Your task to perform on an android device: Search for jbl charge 4 on costco, select the first entry, add it to the cart, then select checkout. Image 0: 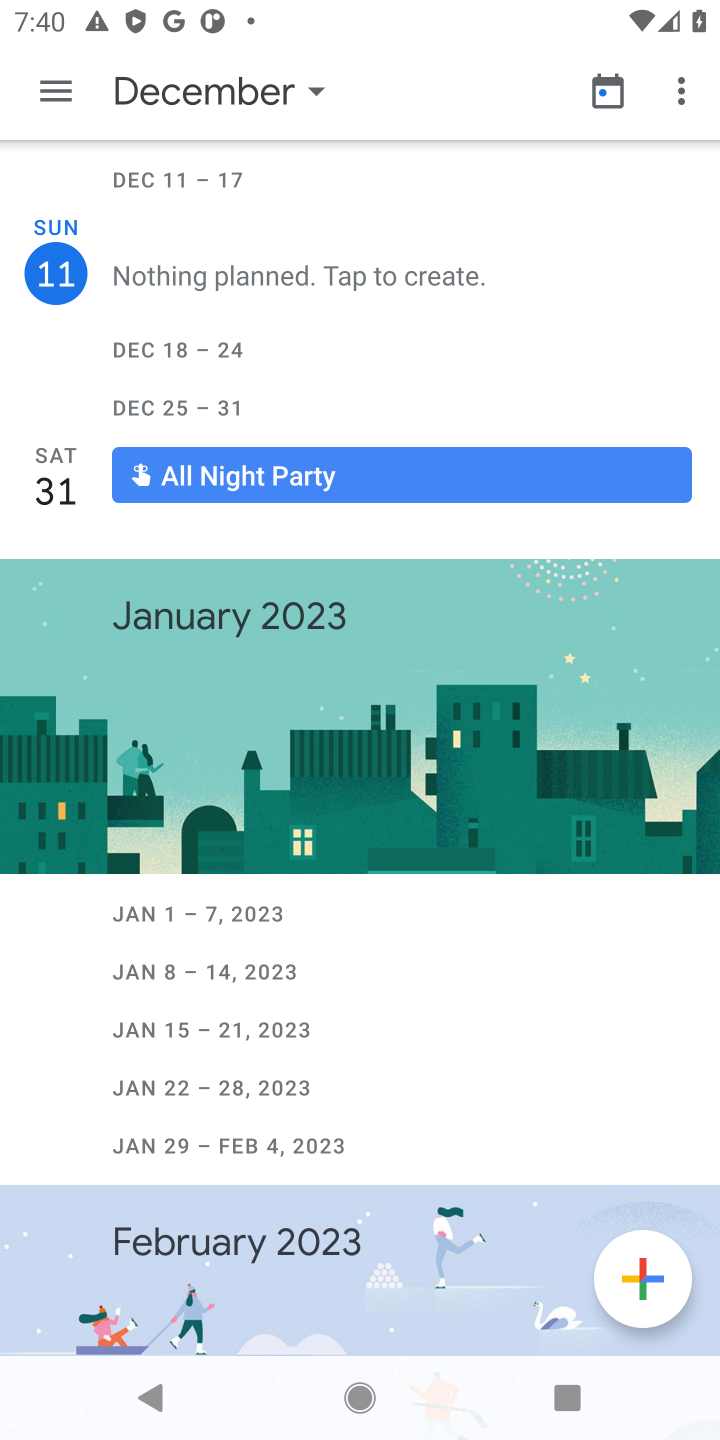
Step 0: press home button
Your task to perform on an android device: Search for jbl charge 4 on costco, select the first entry, add it to the cart, then select checkout. Image 1: 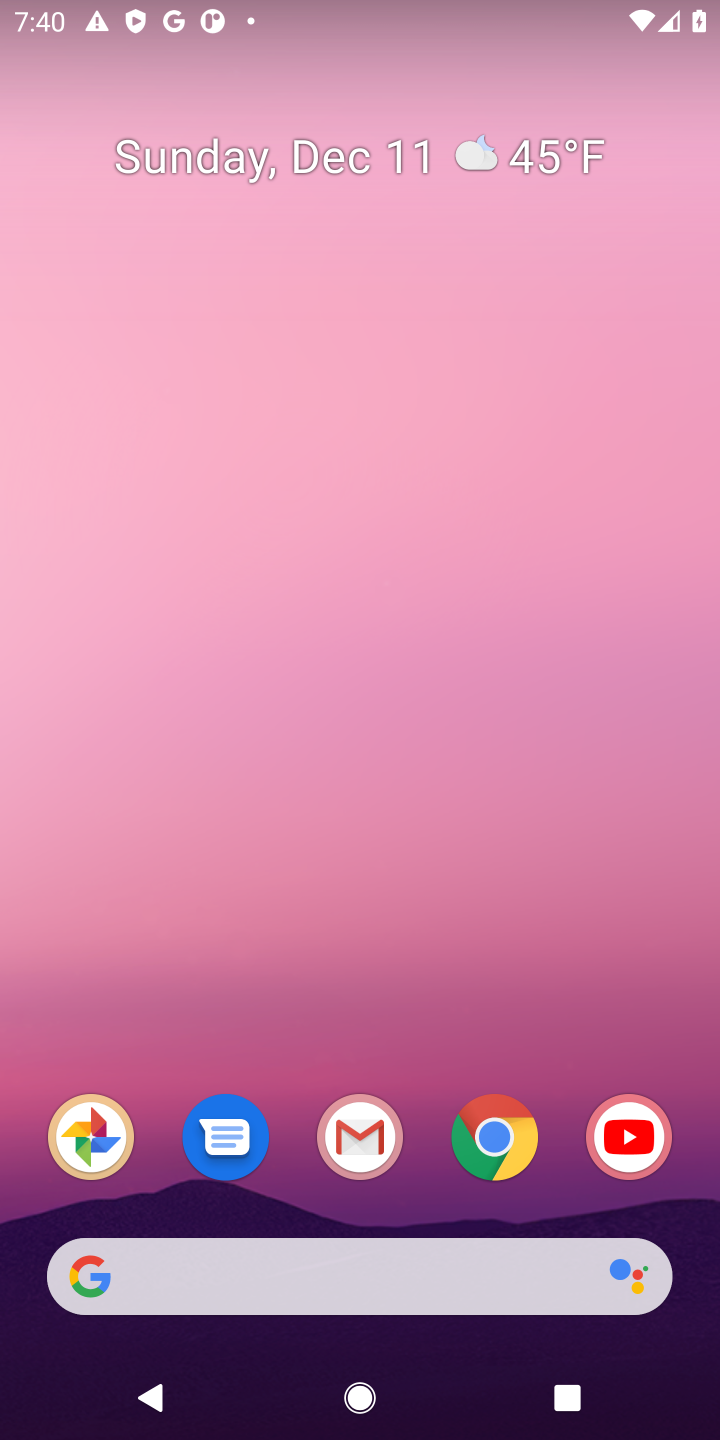
Step 1: click (511, 1154)
Your task to perform on an android device: Search for jbl charge 4 on costco, select the first entry, add it to the cart, then select checkout. Image 2: 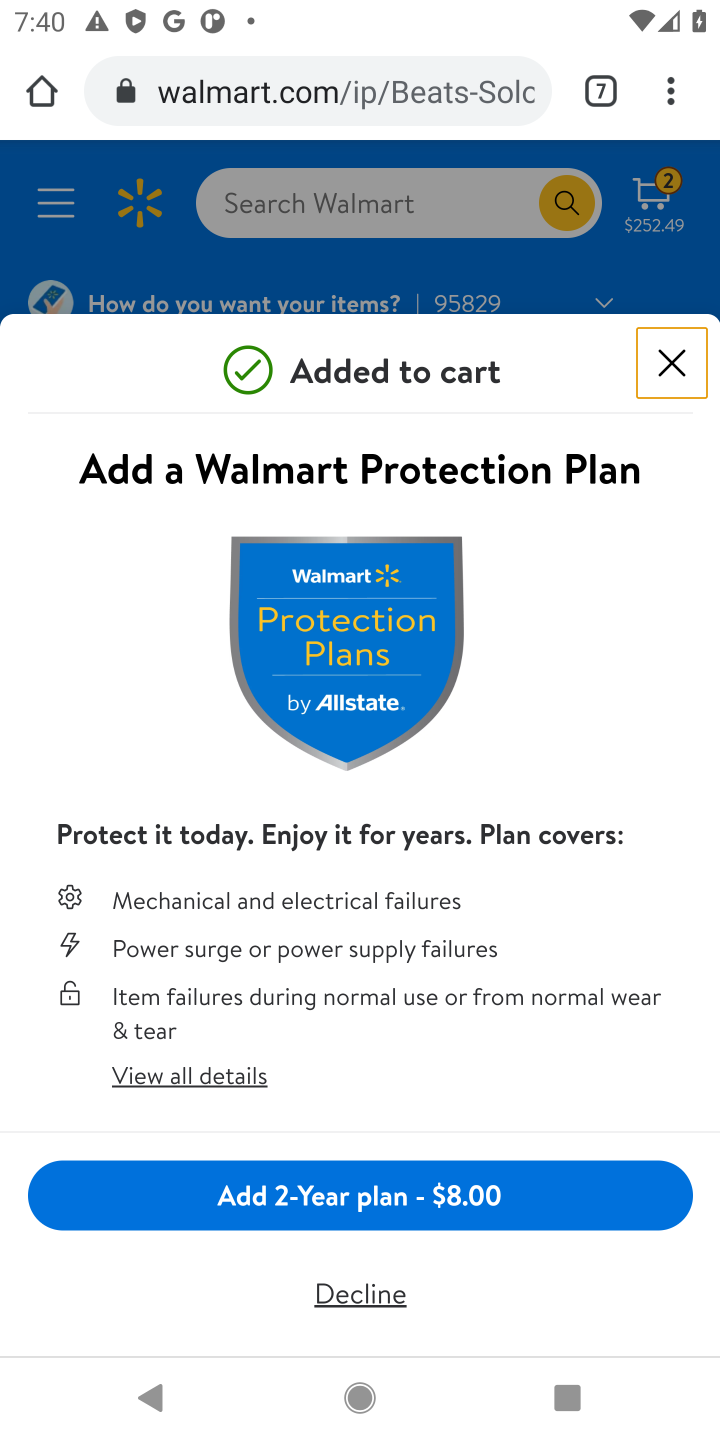
Step 2: click (328, 104)
Your task to perform on an android device: Search for jbl charge 4 on costco, select the first entry, add it to the cart, then select checkout. Image 3: 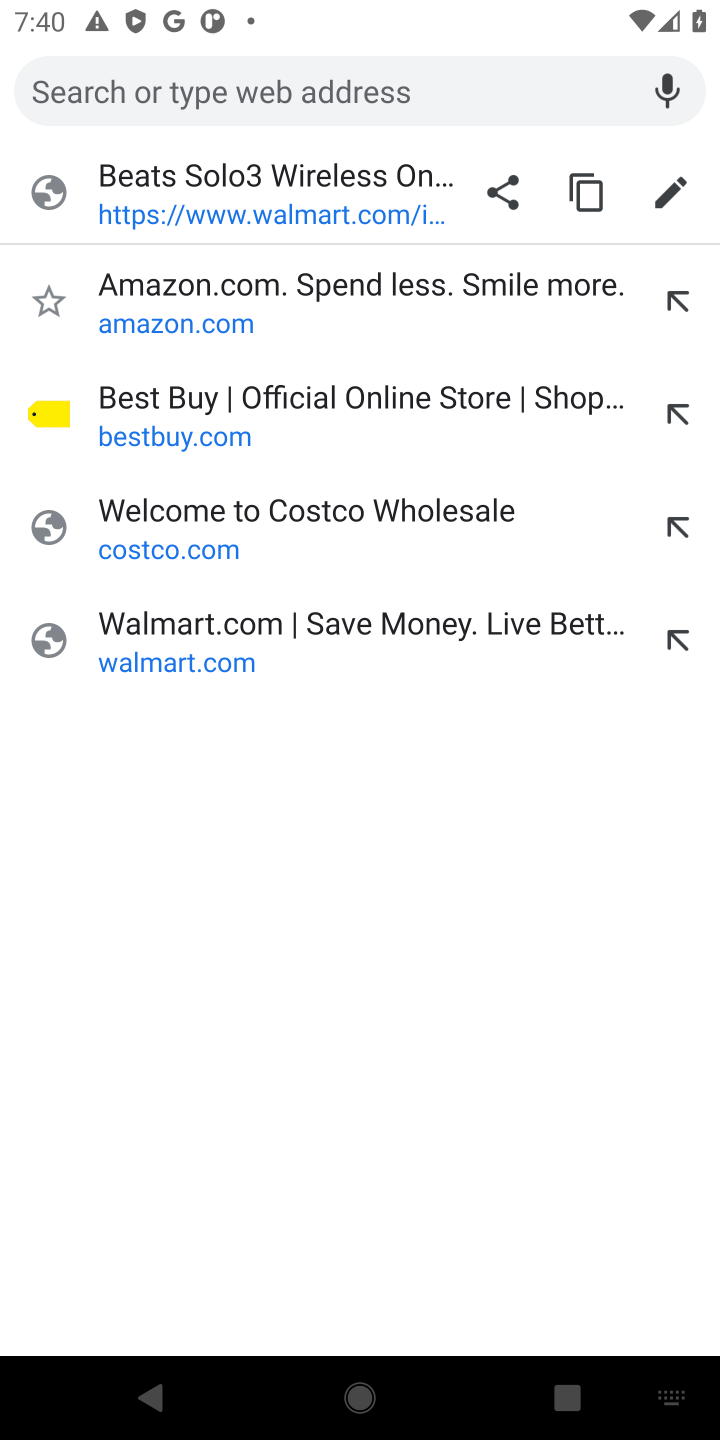
Step 3: click (292, 96)
Your task to perform on an android device: Search for jbl charge 4 on costco, select the first entry, add it to the cart, then select checkout. Image 4: 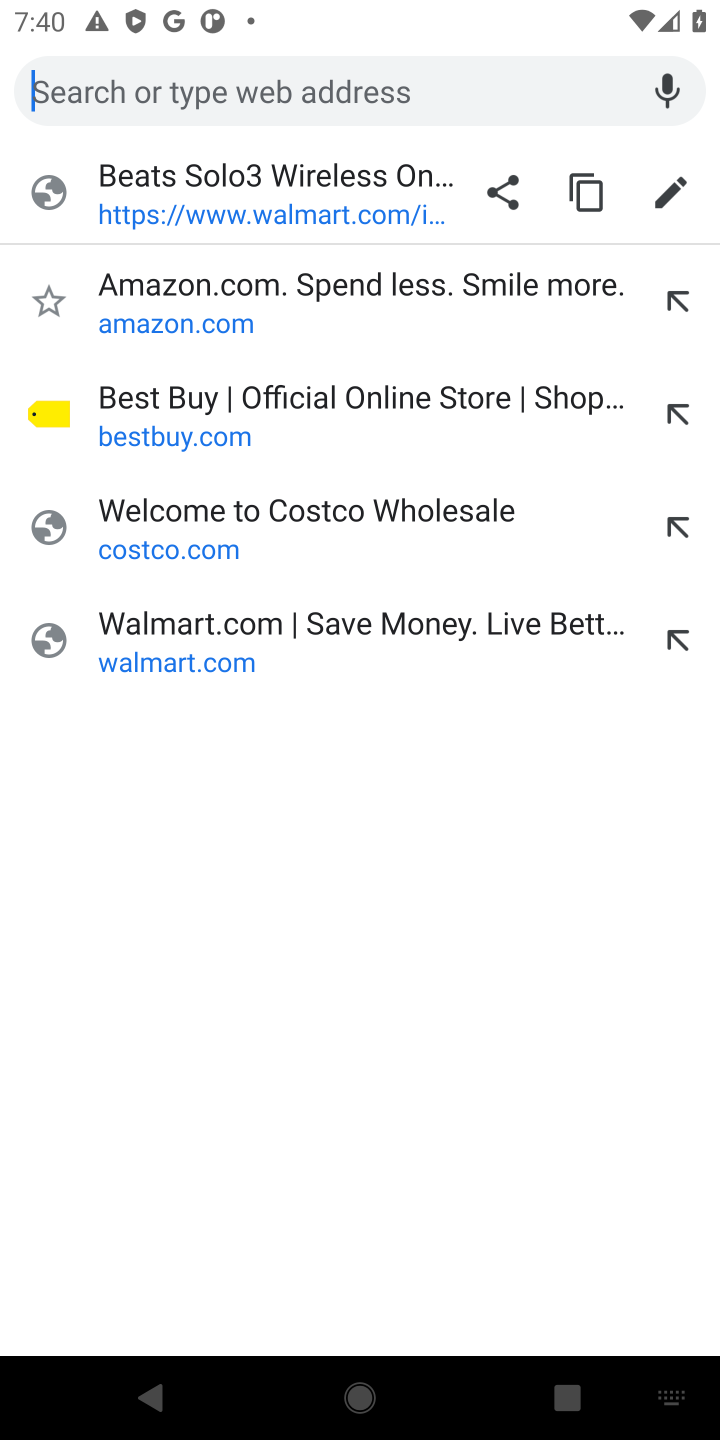
Step 4: click (196, 552)
Your task to perform on an android device: Search for jbl charge 4 on costco, select the first entry, add it to the cart, then select checkout. Image 5: 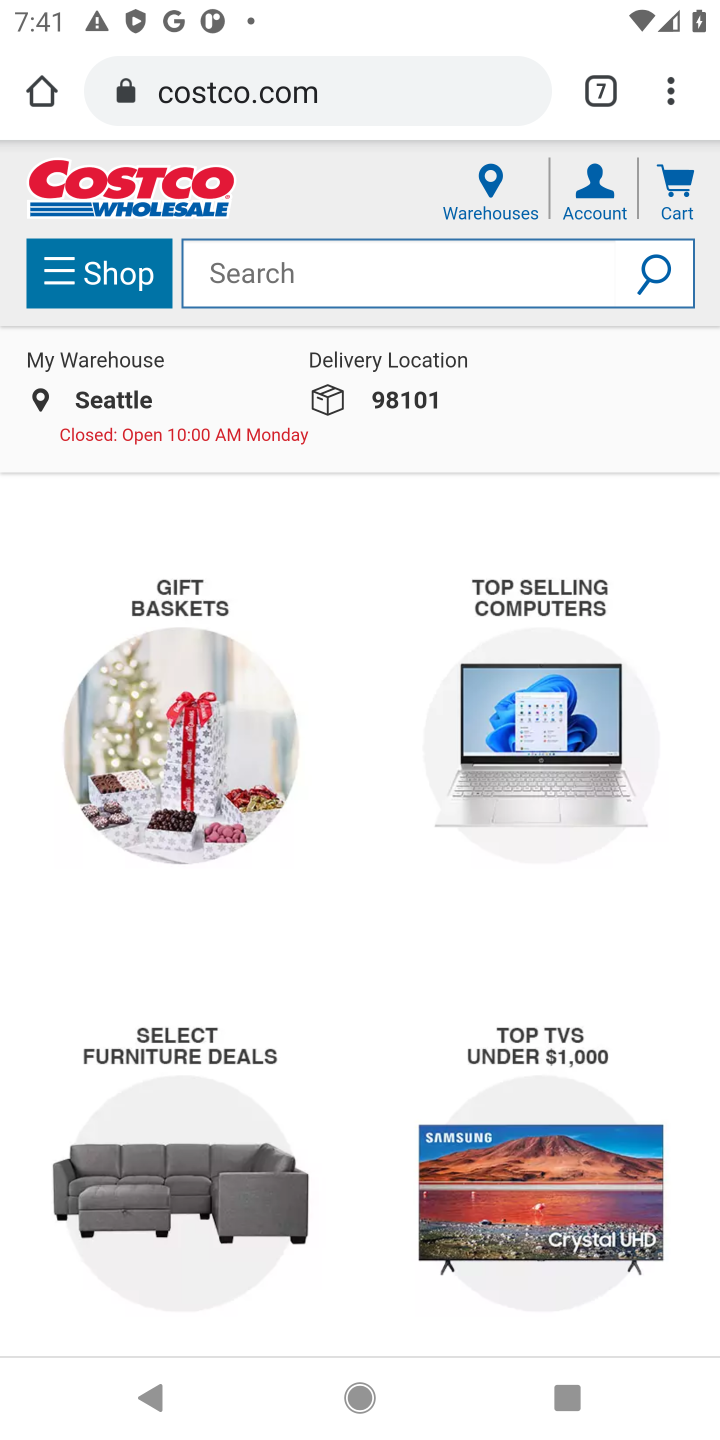
Step 5: click (277, 290)
Your task to perform on an android device: Search for jbl charge 4 on costco, select the first entry, add it to the cart, then select checkout. Image 6: 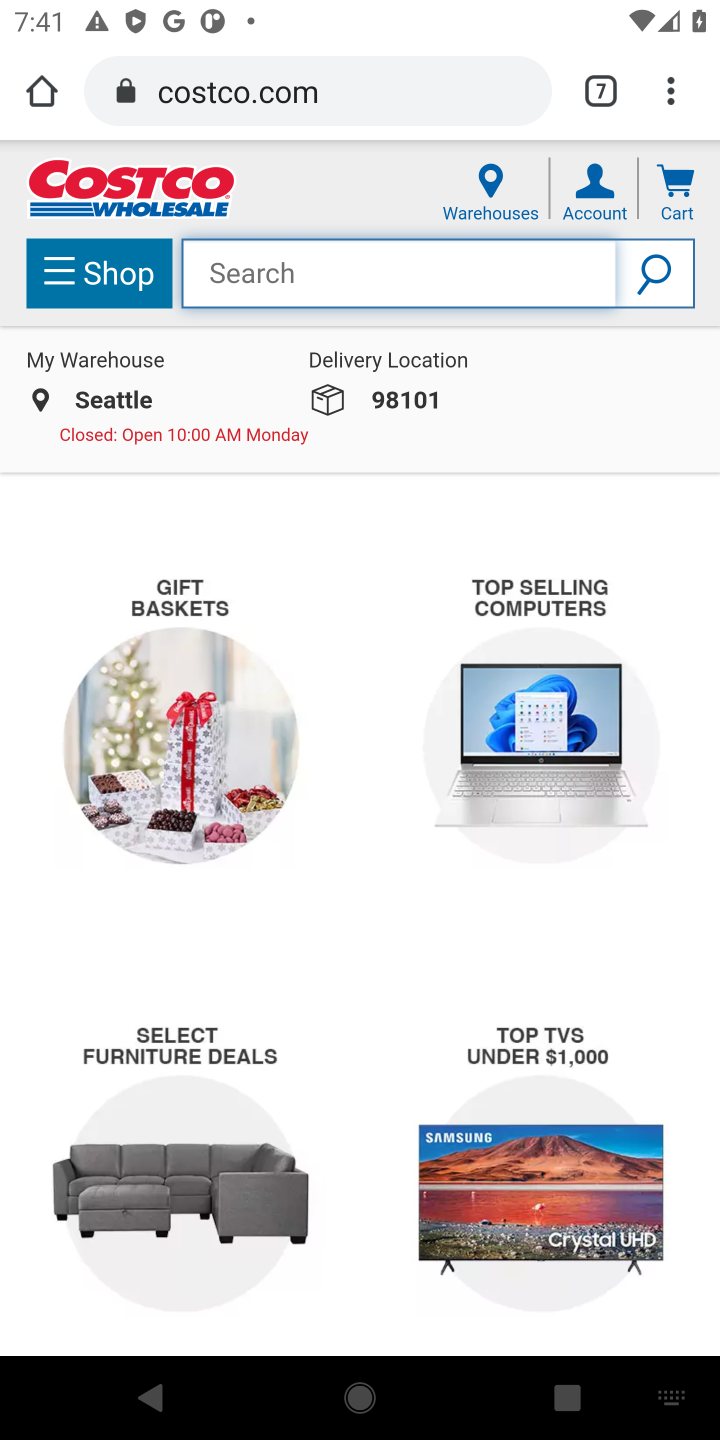
Step 6: type "jbl charge 4"
Your task to perform on an android device: Search for jbl charge 4 on costco, select the first entry, add it to the cart, then select checkout. Image 7: 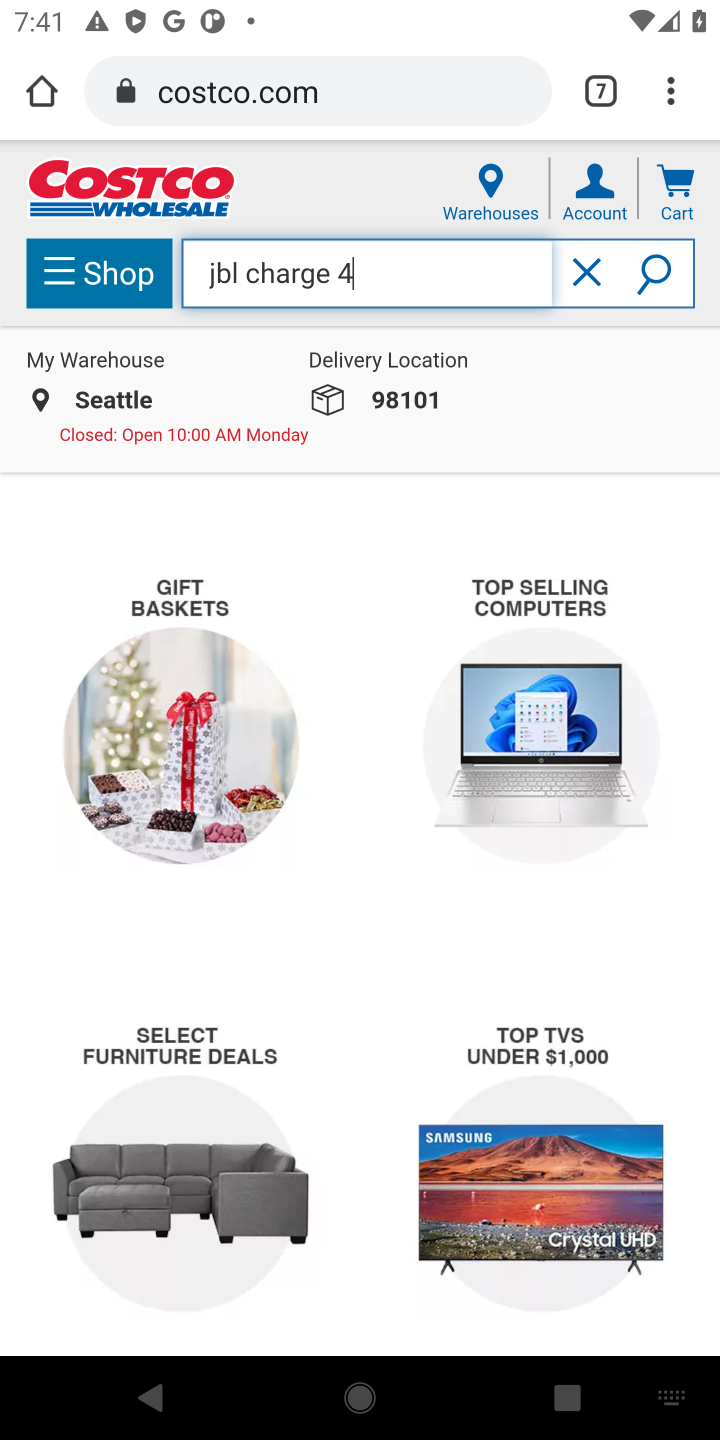
Step 7: type ""
Your task to perform on an android device: Search for jbl charge 4 on costco, select the first entry, add it to the cart, then select checkout. Image 8: 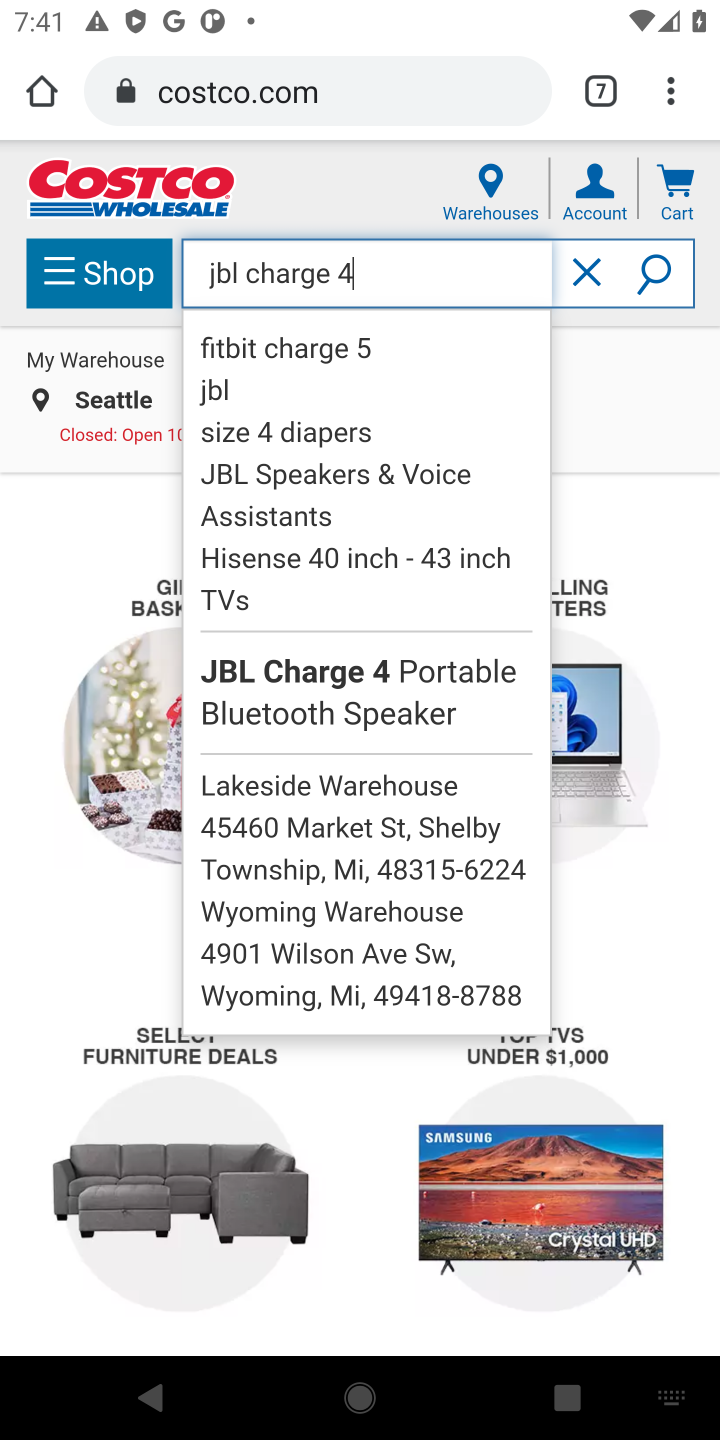
Step 8: click (671, 274)
Your task to perform on an android device: Search for jbl charge 4 on costco, select the first entry, add it to the cart, then select checkout. Image 9: 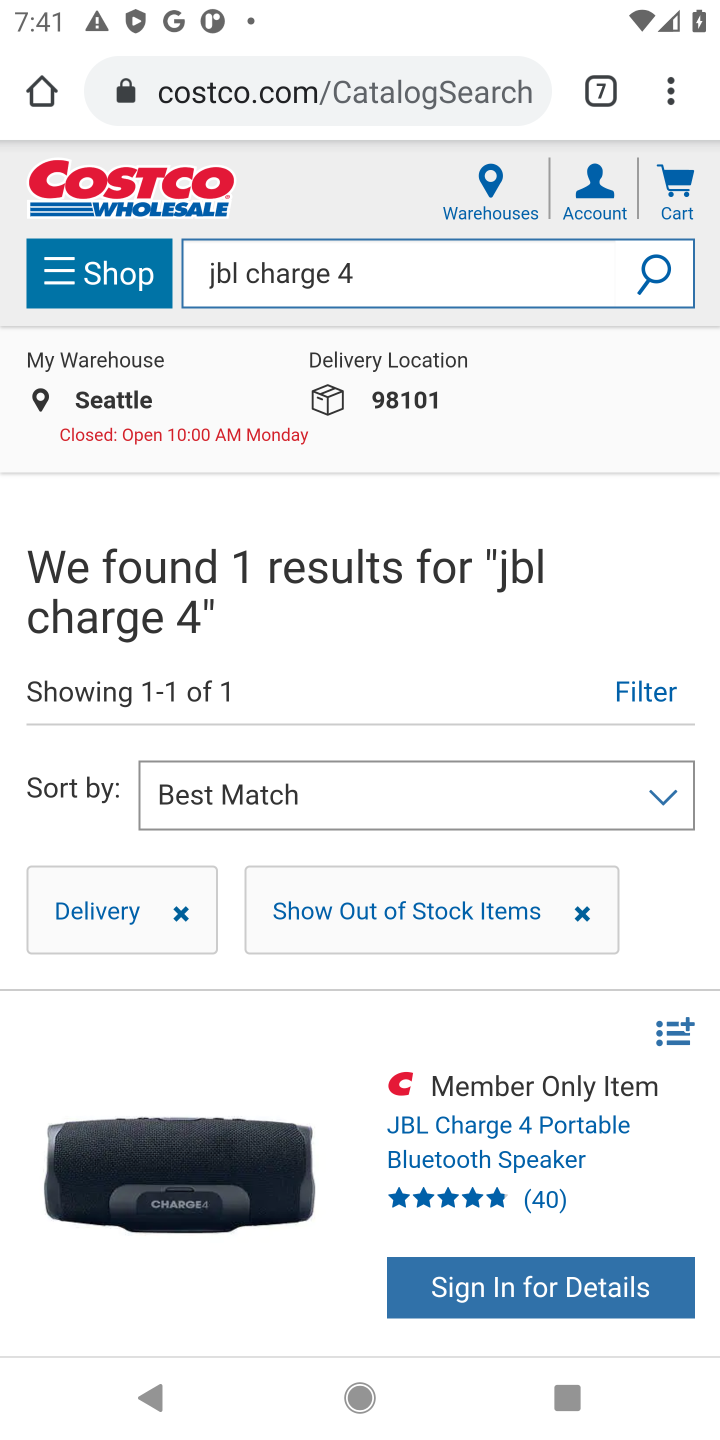
Step 9: click (343, 366)
Your task to perform on an android device: Search for jbl charge 4 on costco, select the first entry, add it to the cart, then select checkout. Image 10: 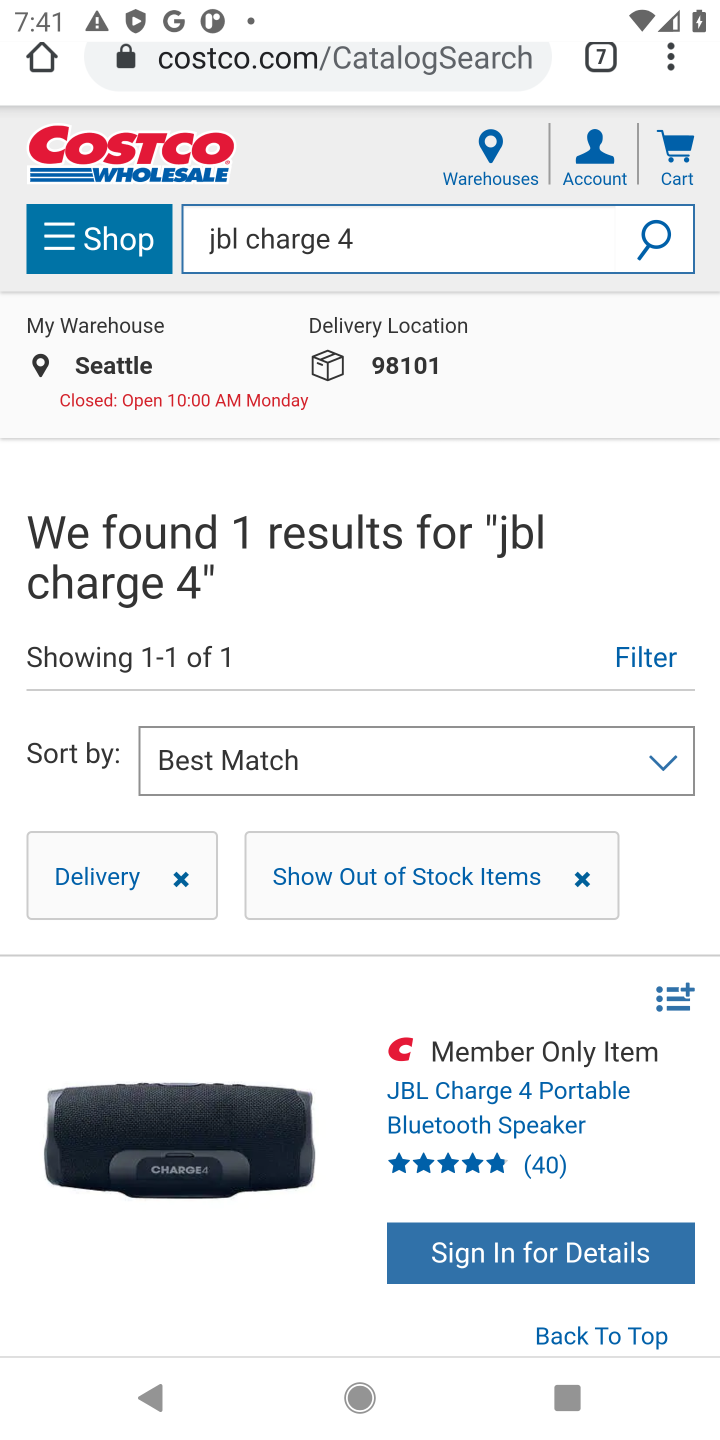
Step 10: drag from (369, 577) to (400, 445)
Your task to perform on an android device: Search for jbl charge 4 on costco, select the first entry, add it to the cart, then select checkout. Image 11: 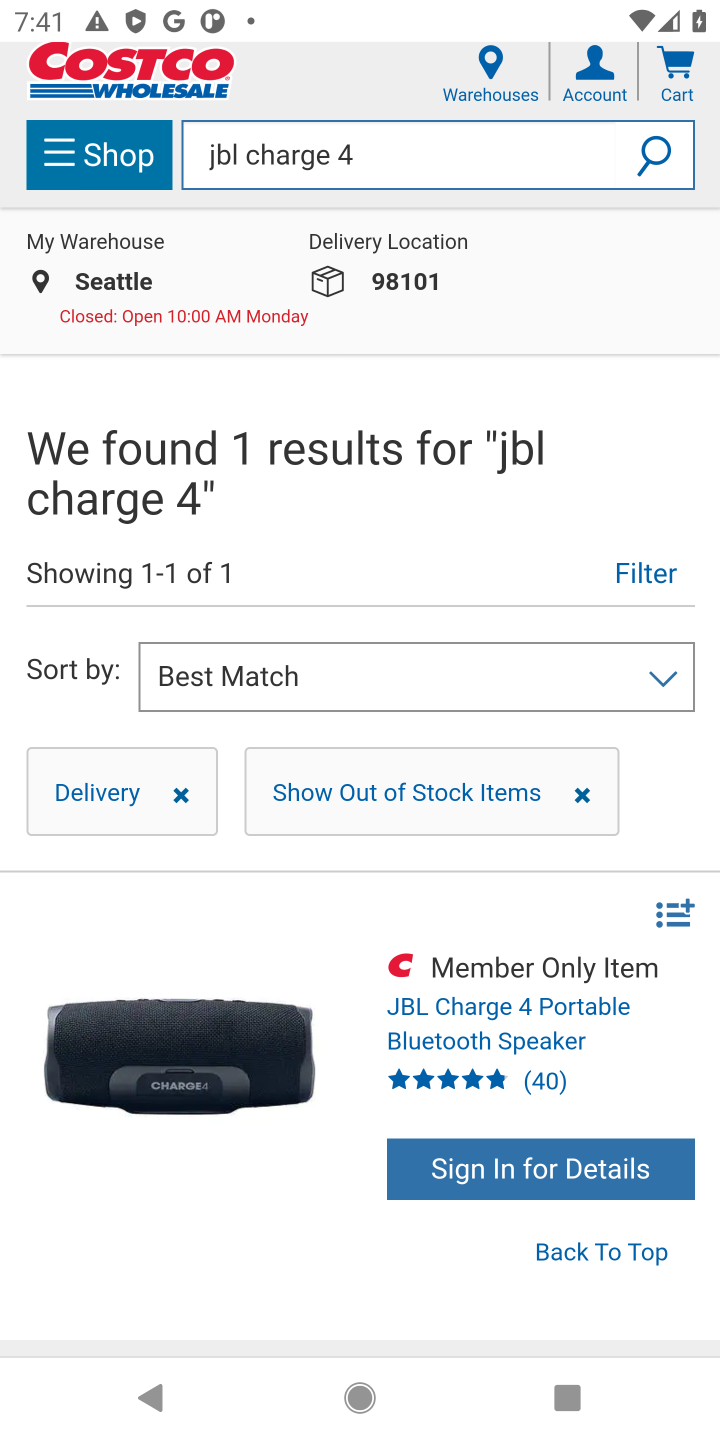
Step 11: drag from (370, 1244) to (417, 539)
Your task to perform on an android device: Search for jbl charge 4 on costco, select the first entry, add it to the cart, then select checkout. Image 12: 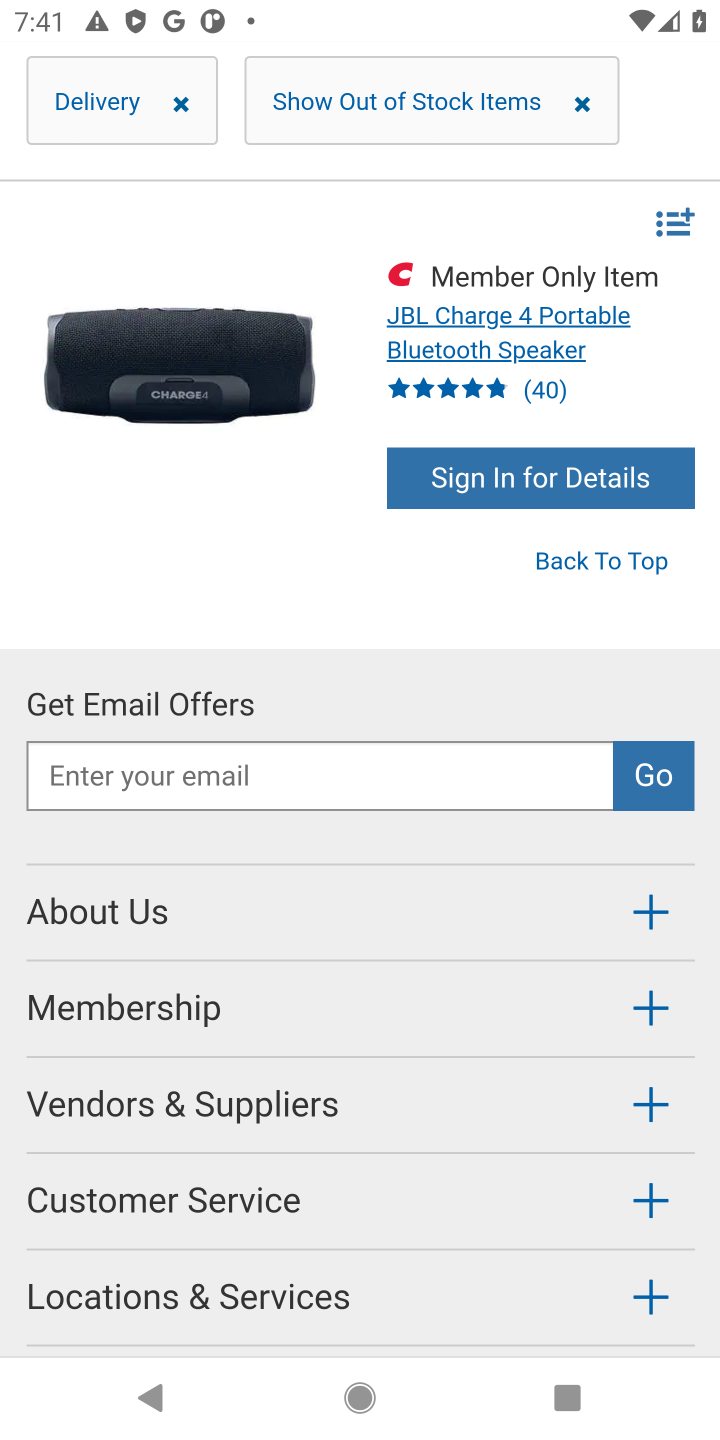
Step 12: click (452, 475)
Your task to perform on an android device: Search for jbl charge 4 on costco, select the first entry, add it to the cart, then select checkout. Image 13: 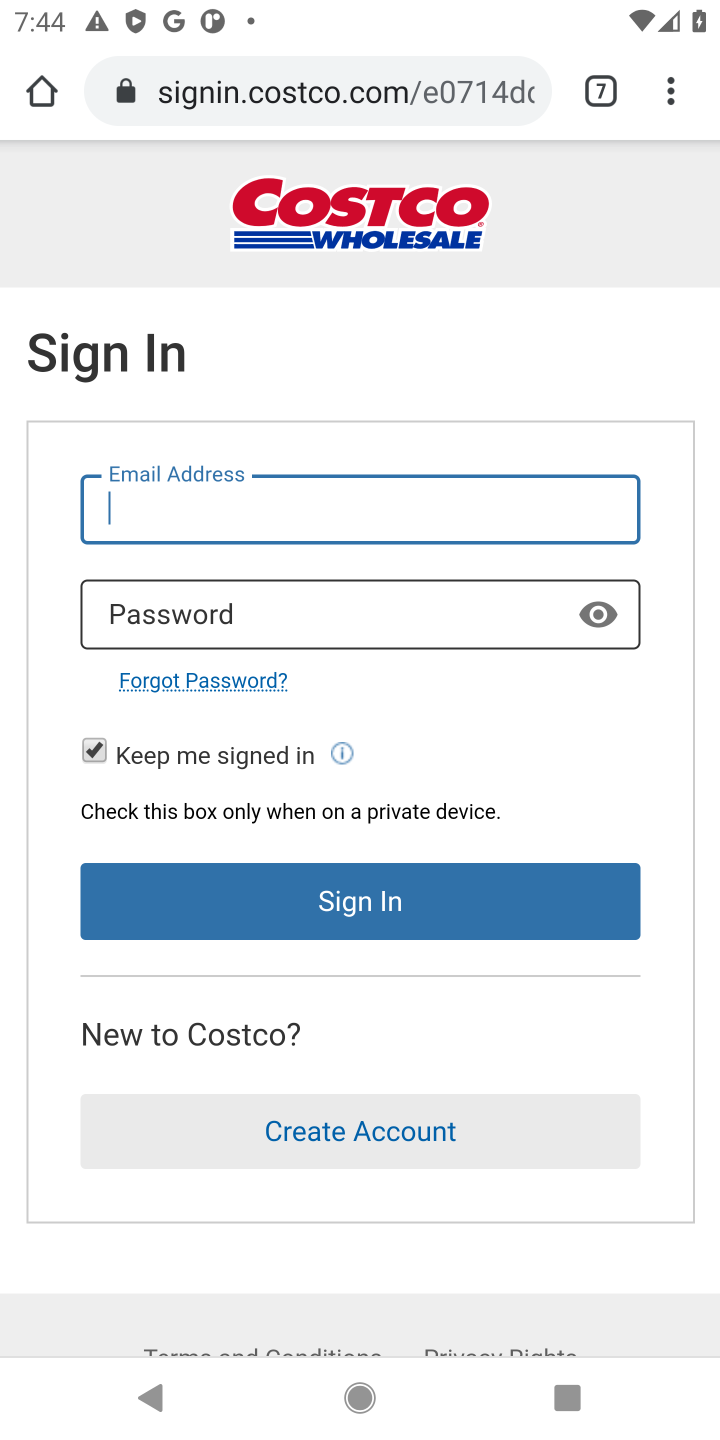
Step 13: task complete